Your task to perform on an android device: Open internet settings Image 0: 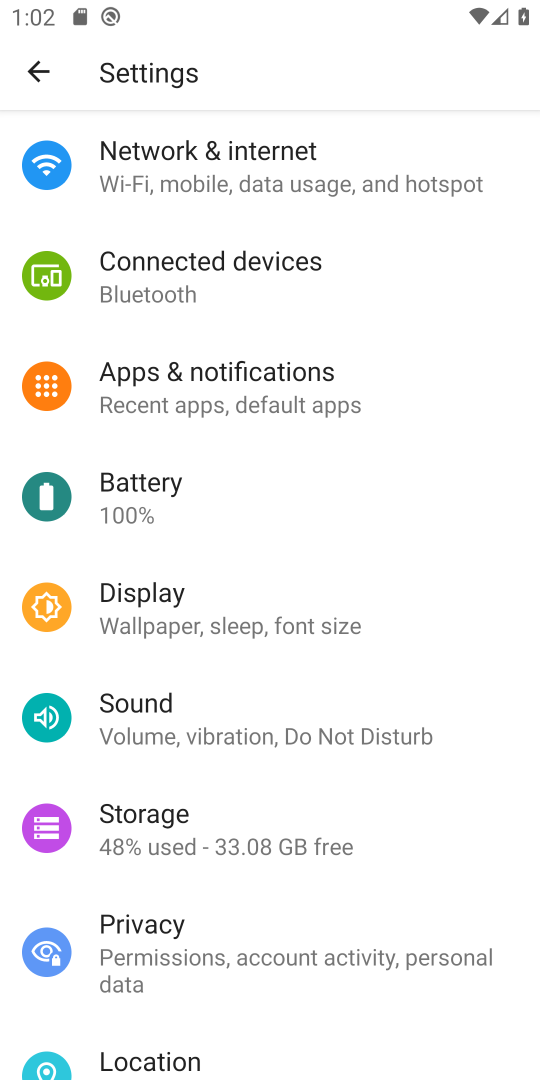
Step 0: click (244, 172)
Your task to perform on an android device: Open internet settings Image 1: 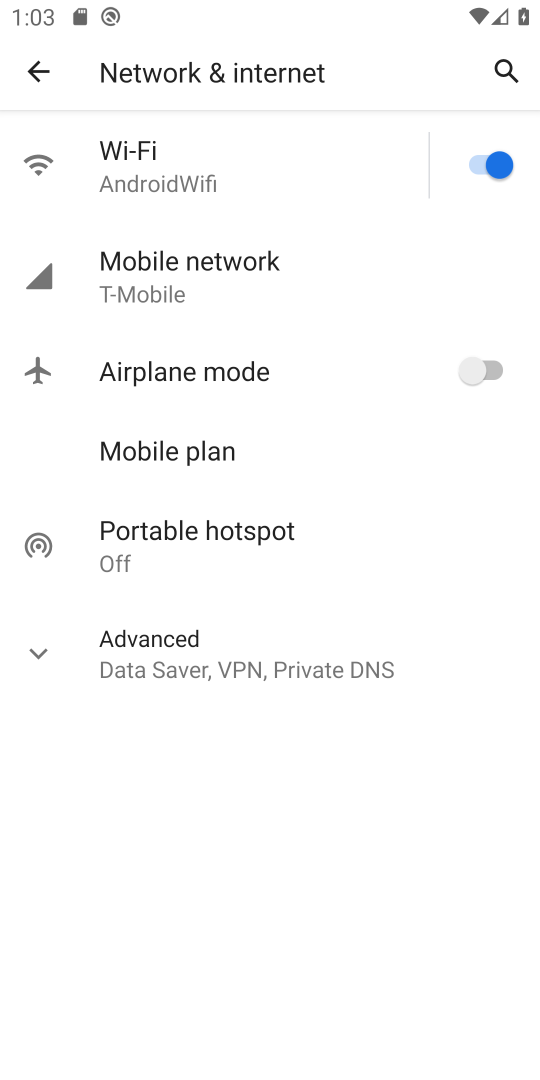
Step 1: task complete